Your task to perform on an android device: turn off airplane mode Image 0: 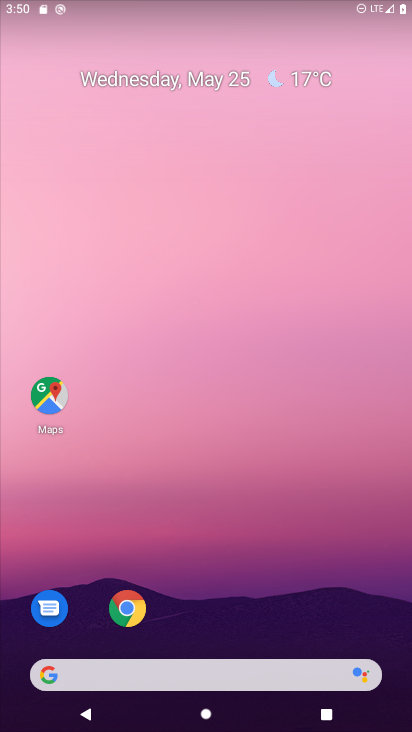
Step 0: drag from (385, 630) to (317, 123)
Your task to perform on an android device: turn off airplane mode Image 1: 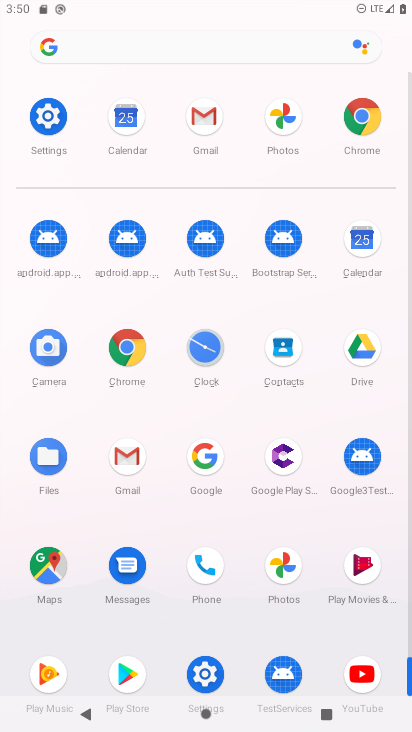
Step 1: click (206, 674)
Your task to perform on an android device: turn off airplane mode Image 2: 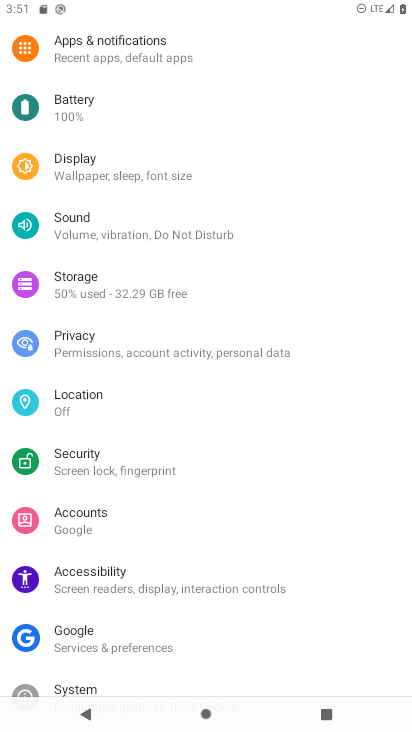
Step 2: drag from (295, 139) to (302, 420)
Your task to perform on an android device: turn off airplane mode Image 3: 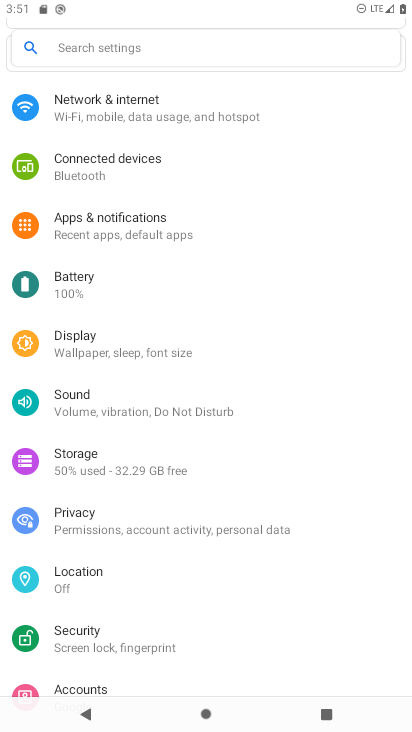
Step 3: click (82, 97)
Your task to perform on an android device: turn off airplane mode Image 4: 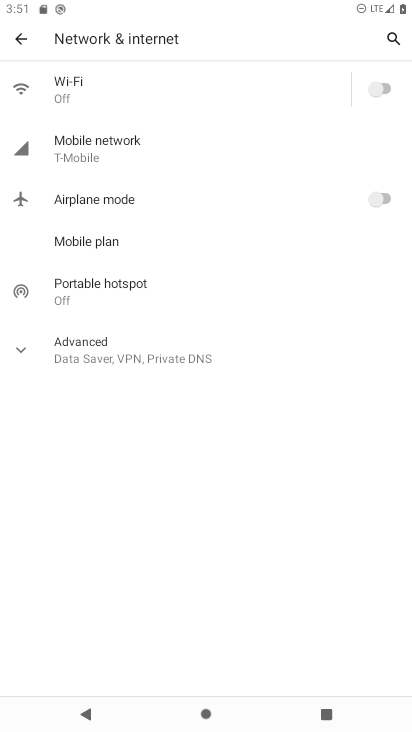
Step 4: task complete